Your task to perform on an android device: Open calendar and show me the first week of next month Image 0: 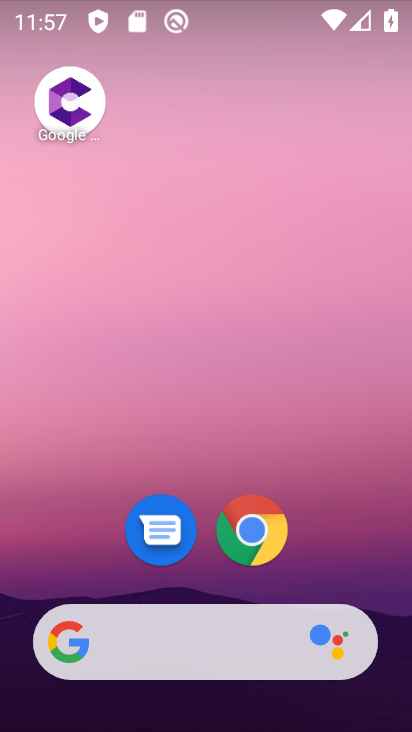
Step 0: drag from (82, 518) to (164, 109)
Your task to perform on an android device: Open calendar and show me the first week of next month Image 1: 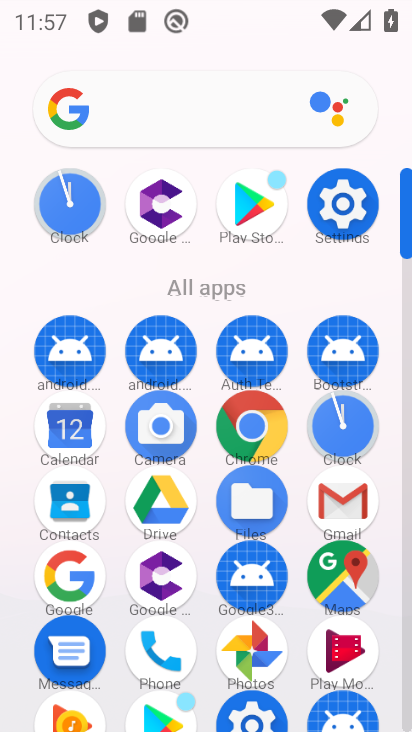
Step 1: click (64, 419)
Your task to perform on an android device: Open calendar and show me the first week of next month Image 2: 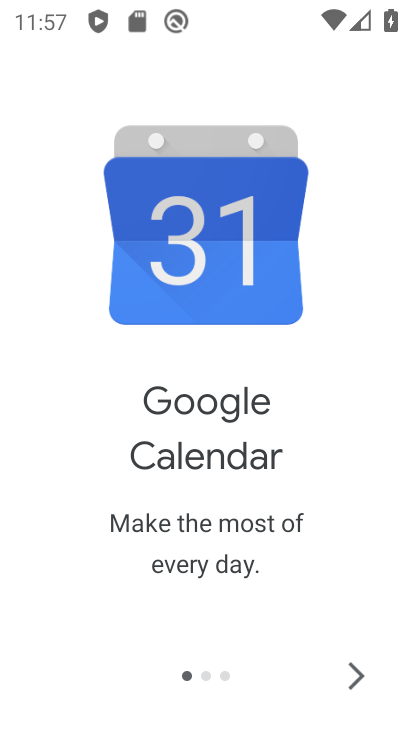
Step 2: click (367, 683)
Your task to perform on an android device: Open calendar and show me the first week of next month Image 3: 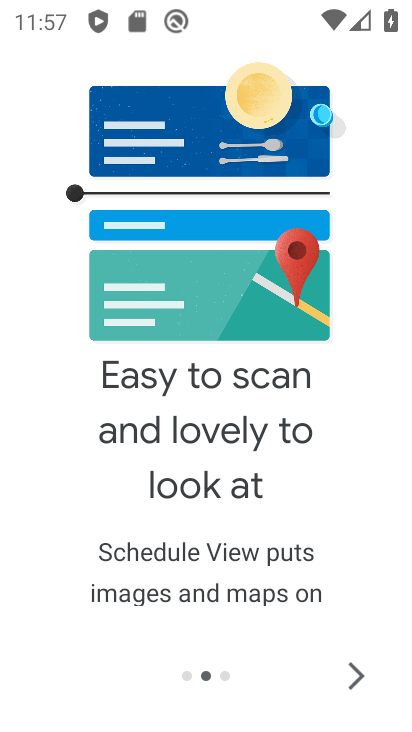
Step 3: click (367, 684)
Your task to perform on an android device: Open calendar and show me the first week of next month Image 4: 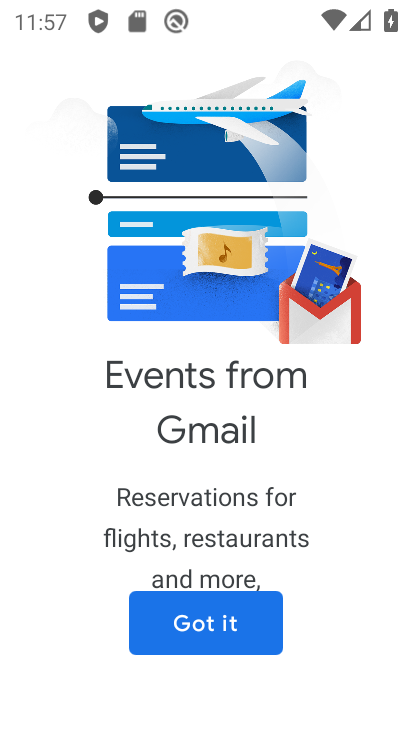
Step 4: click (236, 636)
Your task to perform on an android device: Open calendar and show me the first week of next month Image 5: 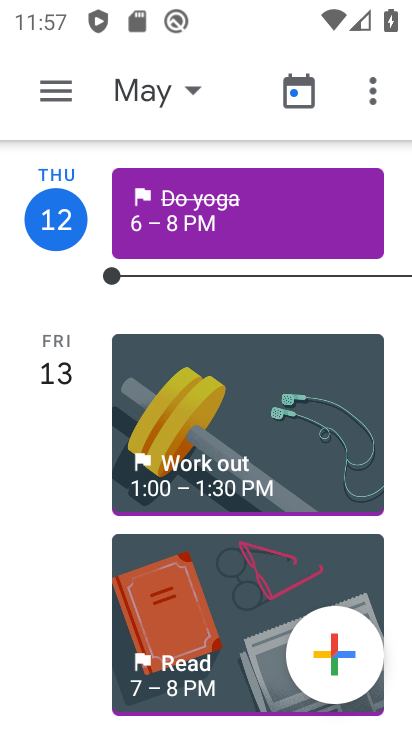
Step 5: click (136, 97)
Your task to perform on an android device: Open calendar and show me the first week of next month Image 6: 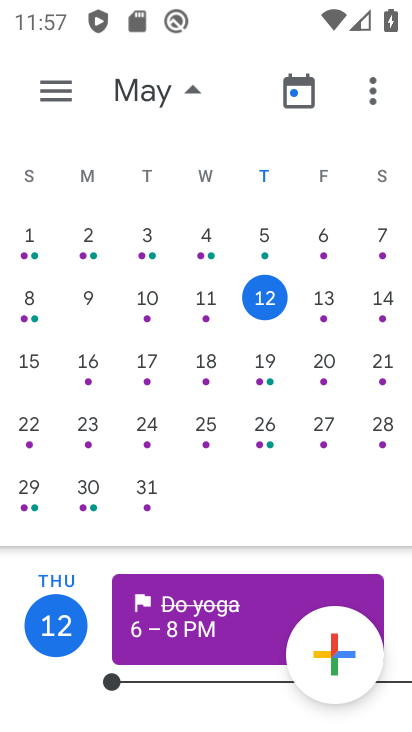
Step 6: drag from (406, 487) to (99, 473)
Your task to perform on an android device: Open calendar and show me the first week of next month Image 7: 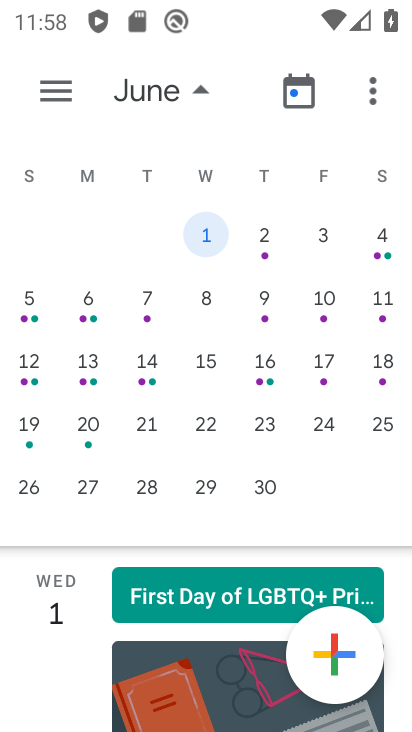
Step 7: click (20, 308)
Your task to perform on an android device: Open calendar and show me the first week of next month Image 8: 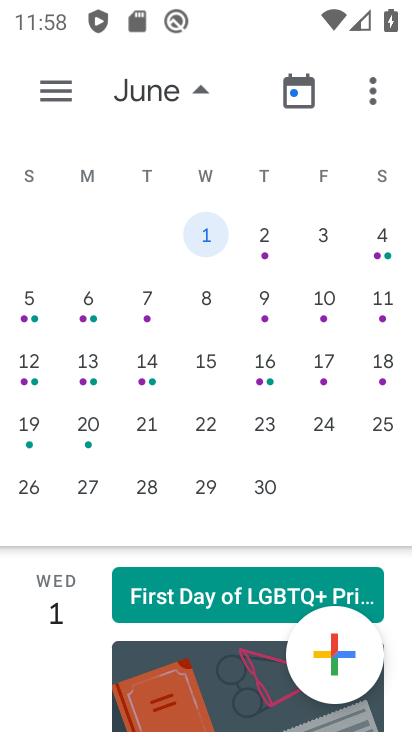
Step 8: click (34, 303)
Your task to perform on an android device: Open calendar and show me the first week of next month Image 9: 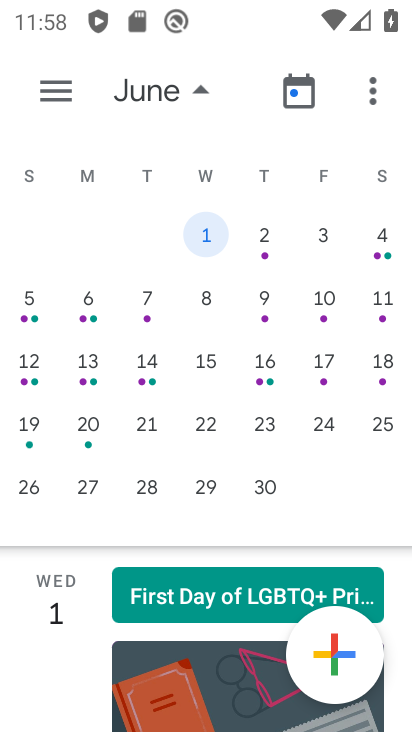
Step 9: click (34, 303)
Your task to perform on an android device: Open calendar and show me the first week of next month Image 10: 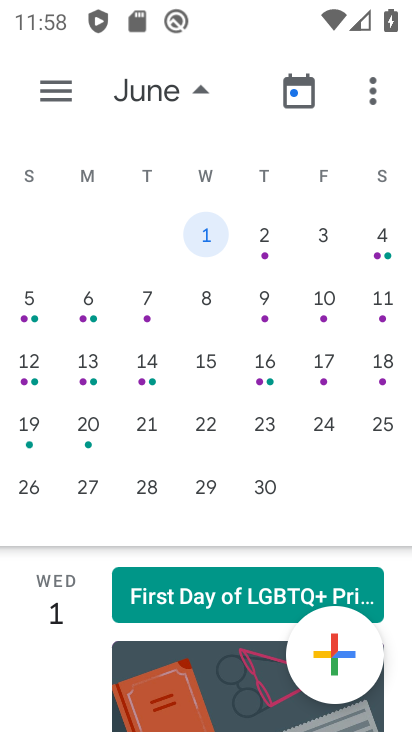
Step 10: click (29, 314)
Your task to perform on an android device: Open calendar and show me the first week of next month Image 11: 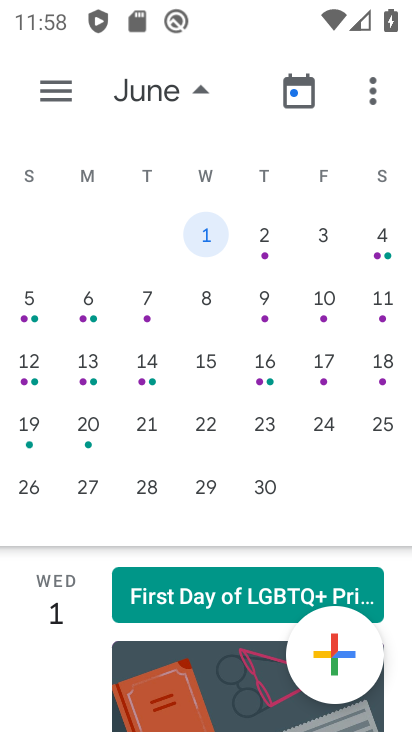
Step 11: click (31, 304)
Your task to perform on an android device: Open calendar and show me the first week of next month Image 12: 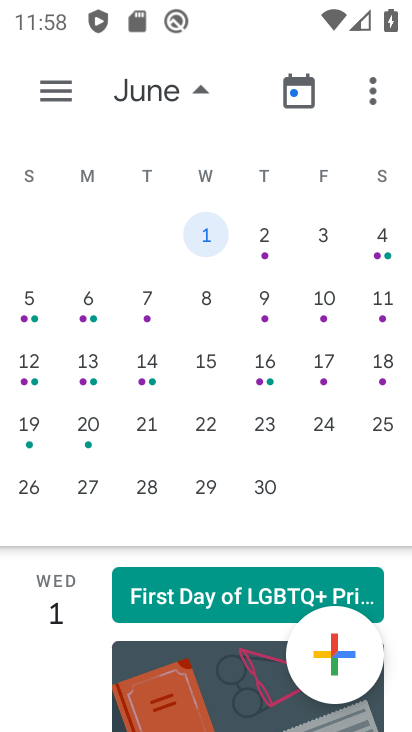
Step 12: click (36, 303)
Your task to perform on an android device: Open calendar and show me the first week of next month Image 13: 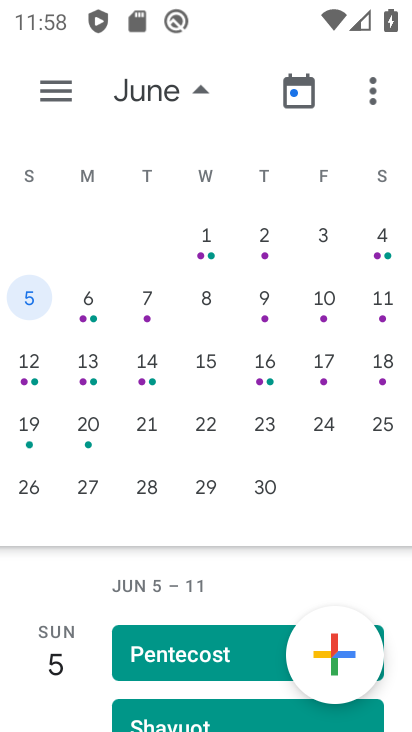
Step 13: click (37, 107)
Your task to perform on an android device: Open calendar and show me the first week of next month Image 14: 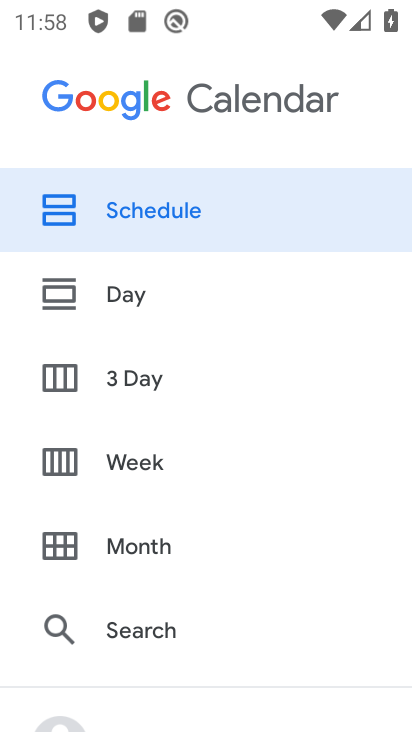
Step 14: click (121, 461)
Your task to perform on an android device: Open calendar and show me the first week of next month Image 15: 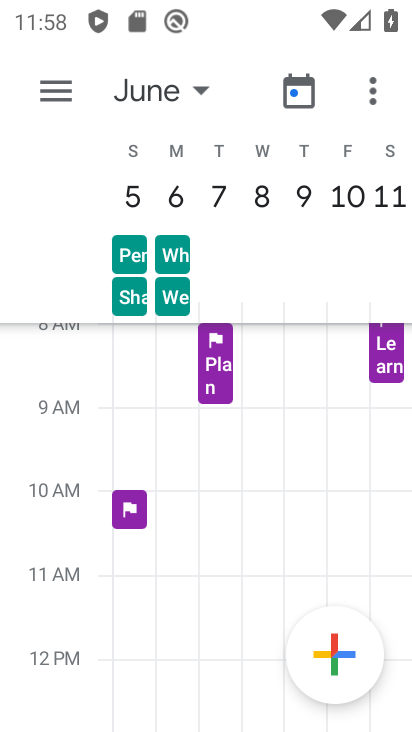
Step 15: task complete